Your task to perform on an android device: Open eBay Image 0: 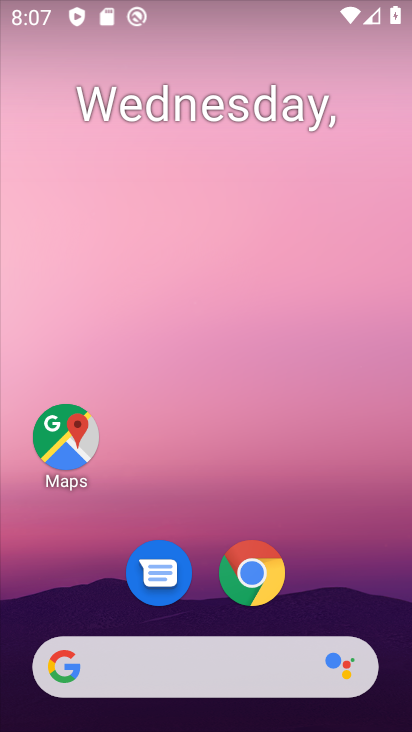
Step 0: drag from (271, 487) to (300, 33)
Your task to perform on an android device: Open eBay Image 1: 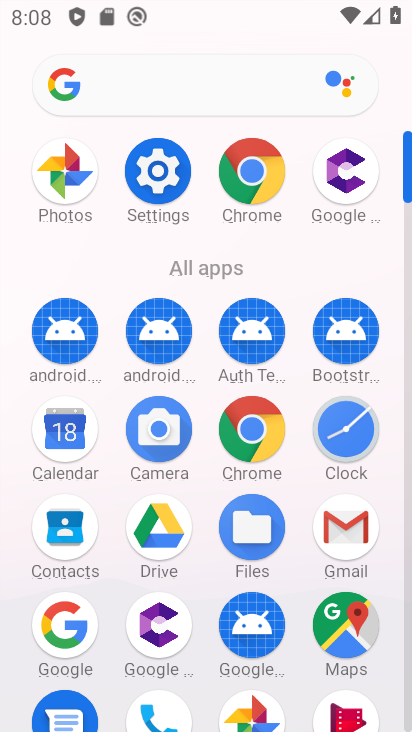
Step 1: click (251, 198)
Your task to perform on an android device: Open eBay Image 2: 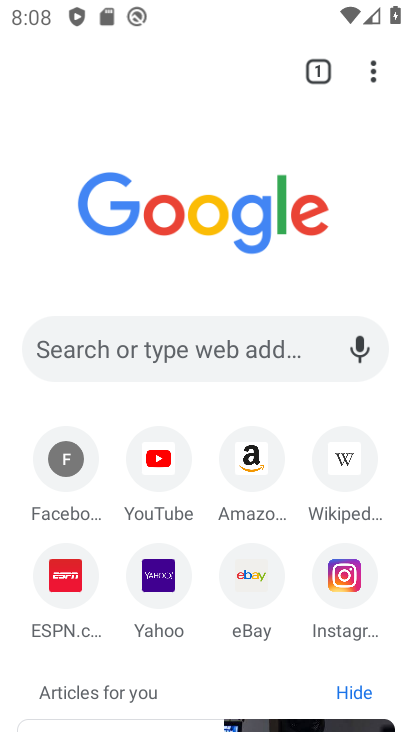
Step 2: click (265, 588)
Your task to perform on an android device: Open eBay Image 3: 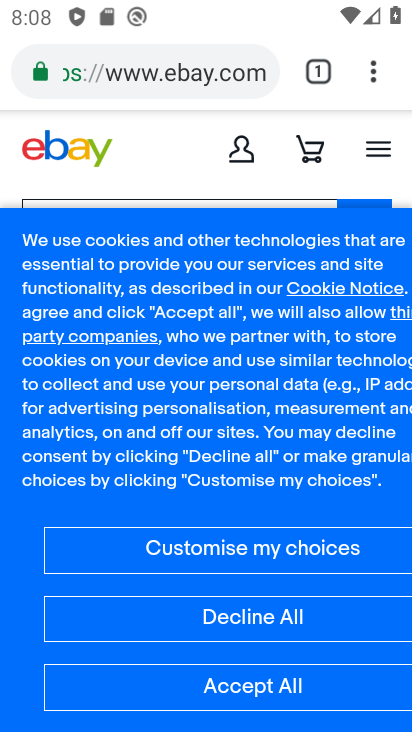
Step 3: task complete